Your task to perform on an android device: Open calendar and show me the third week of next month Image 0: 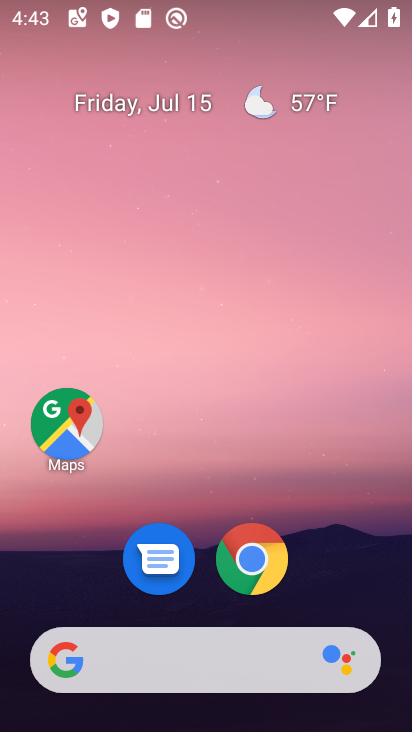
Step 0: drag from (81, 527) to (168, 16)
Your task to perform on an android device: Open calendar and show me the third week of next month Image 1: 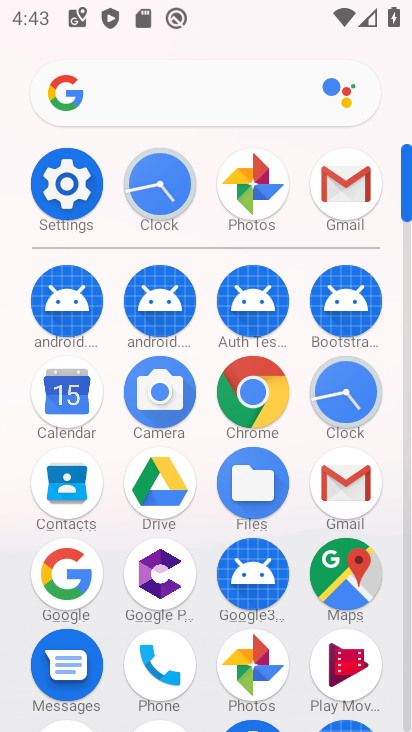
Step 1: click (61, 412)
Your task to perform on an android device: Open calendar and show me the third week of next month Image 2: 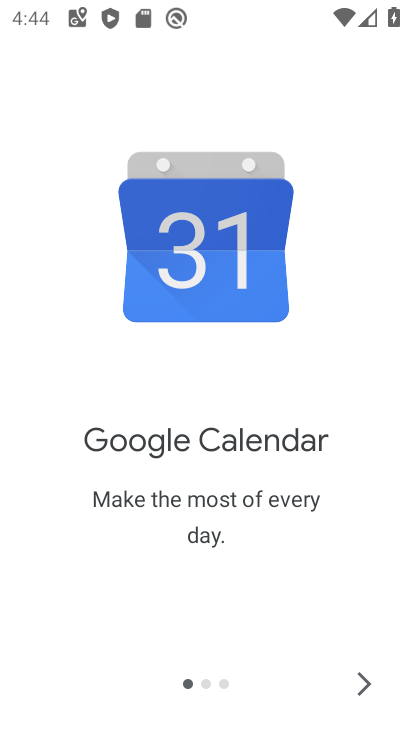
Step 2: click (359, 681)
Your task to perform on an android device: Open calendar and show me the third week of next month Image 3: 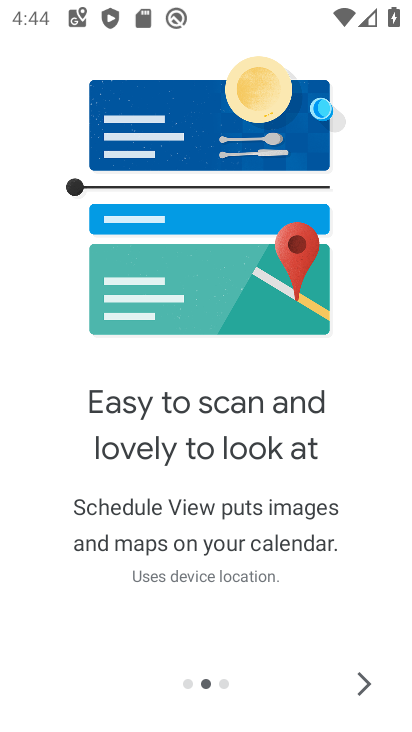
Step 3: click (359, 679)
Your task to perform on an android device: Open calendar and show me the third week of next month Image 4: 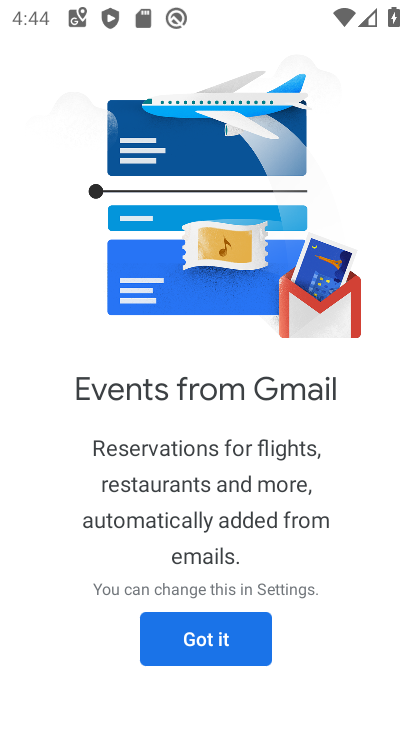
Step 4: click (185, 633)
Your task to perform on an android device: Open calendar and show me the third week of next month Image 5: 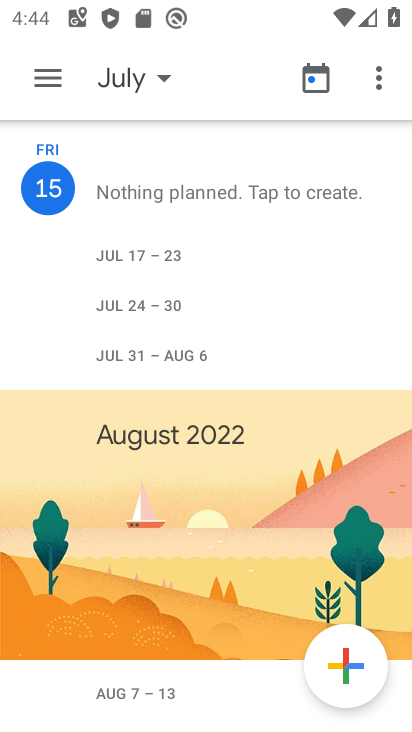
Step 5: click (158, 67)
Your task to perform on an android device: Open calendar and show me the third week of next month Image 6: 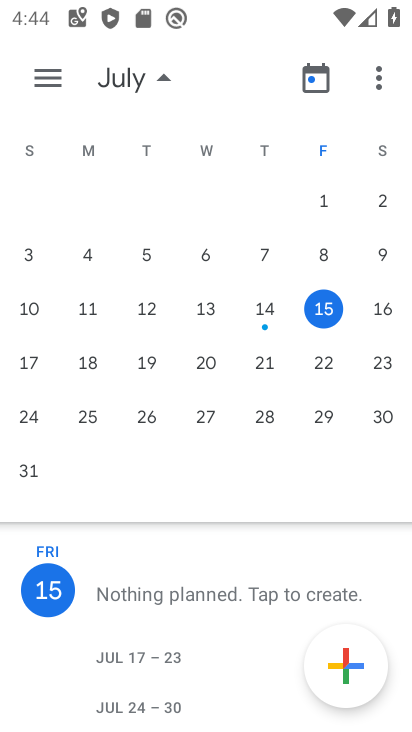
Step 6: drag from (379, 345) to (2, 306)
Your task to perform on an android device: Open calendar and show me the third week of next month Image 7: 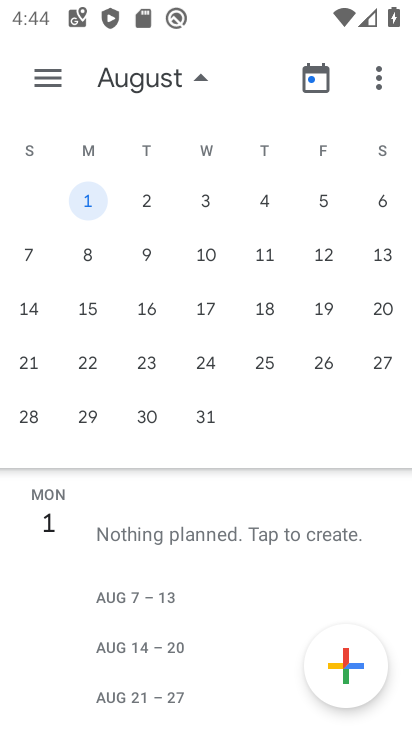
Step 7: click (88, 302)
Your task to perform on an android device: Open calendar and show me the third week of next month Image 8: 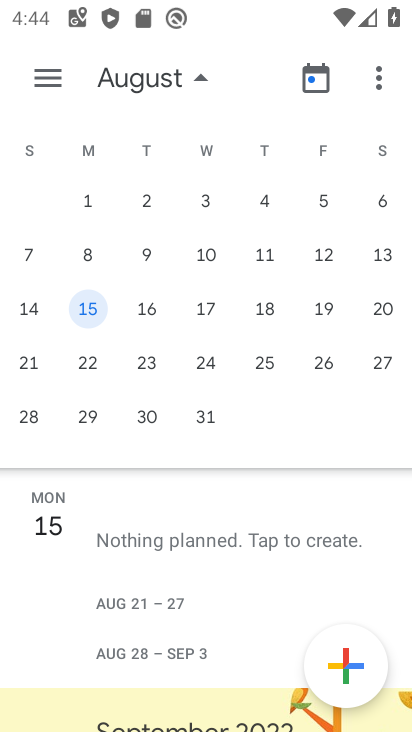
Step 8: task complete